Your task to perform on an android device: Open sound settings Image 0: 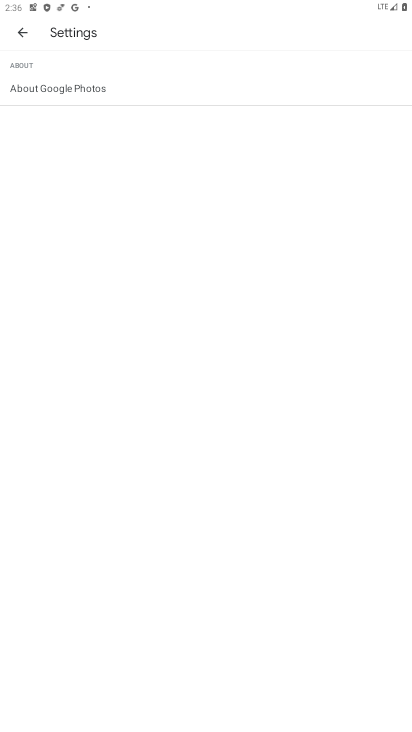
Step 0: press home button
Your task to perform on an android device: Open sound settings Image 1: 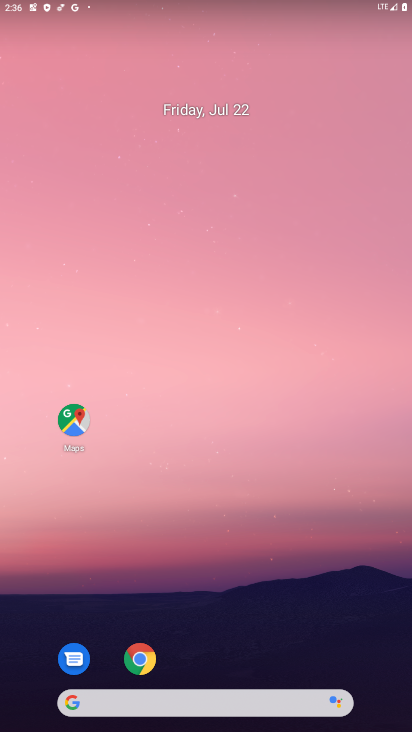
Step 1: drag from (149, 483) to (119, 160)
Your task to perform on an android device: Open sound settings Image 2: 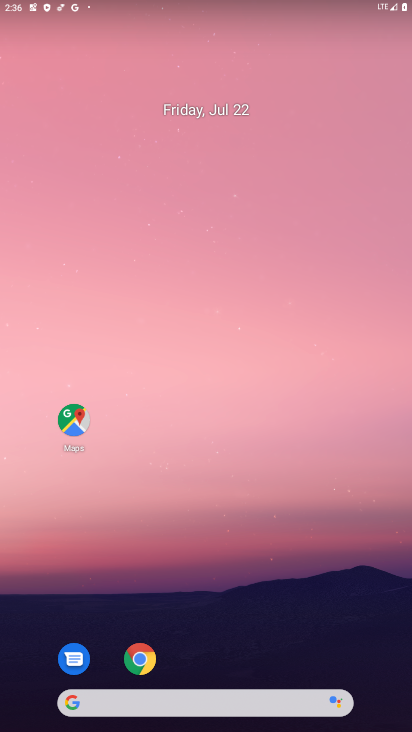
Step 2: drag from (205, 579) to (200, 70)
Your task to perform on an android device: Open sound settings Image 3: 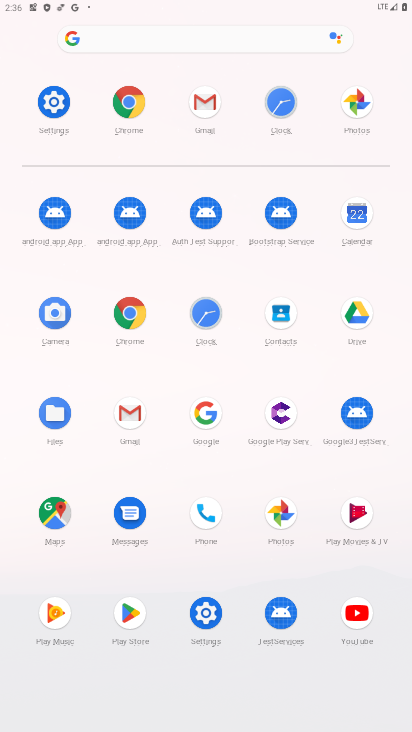
Step 3: click (53, 103)
Your task to perform on an android device: Open sound settings Image 4: 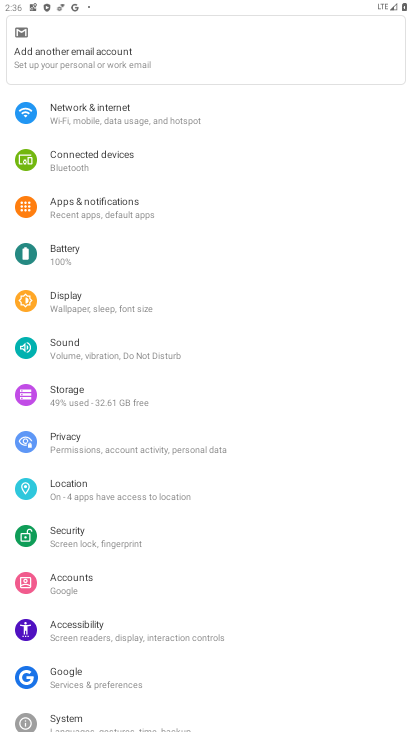
Step 4: click (62, 348)
Your task to perform on an android device: Open sound settings Image 5: 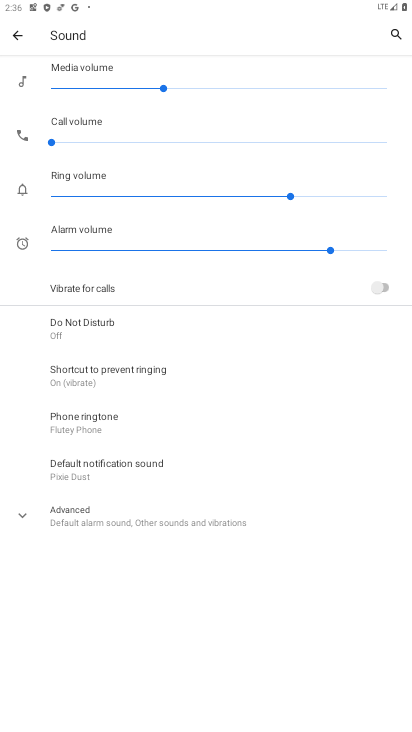
Step 5: task complete